Your task to perform on an android device: open app "Google Chrome" (install if not already installed) Image 0: 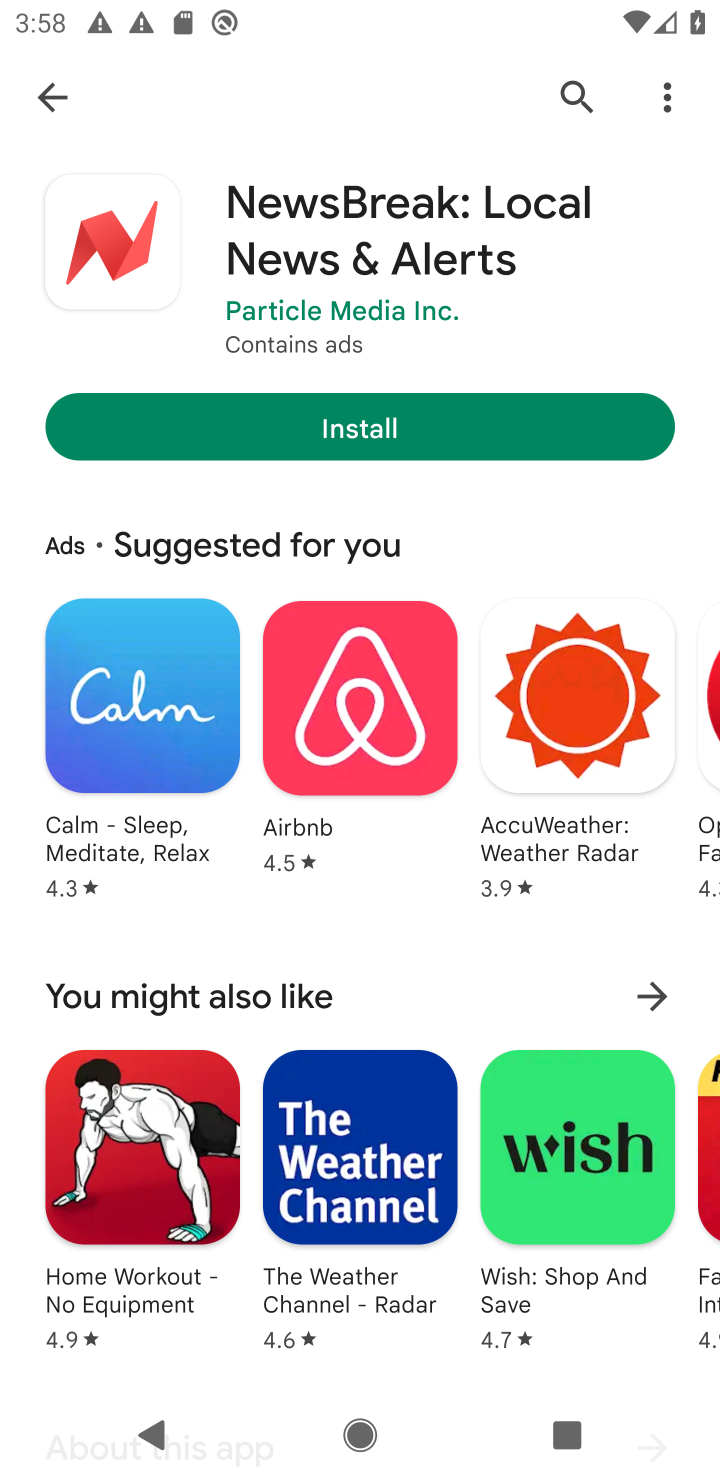
Step 0: click (569, 95)
Your task to perform on an android device: open app "Google Chrome" (install if not already installed) Image 1: 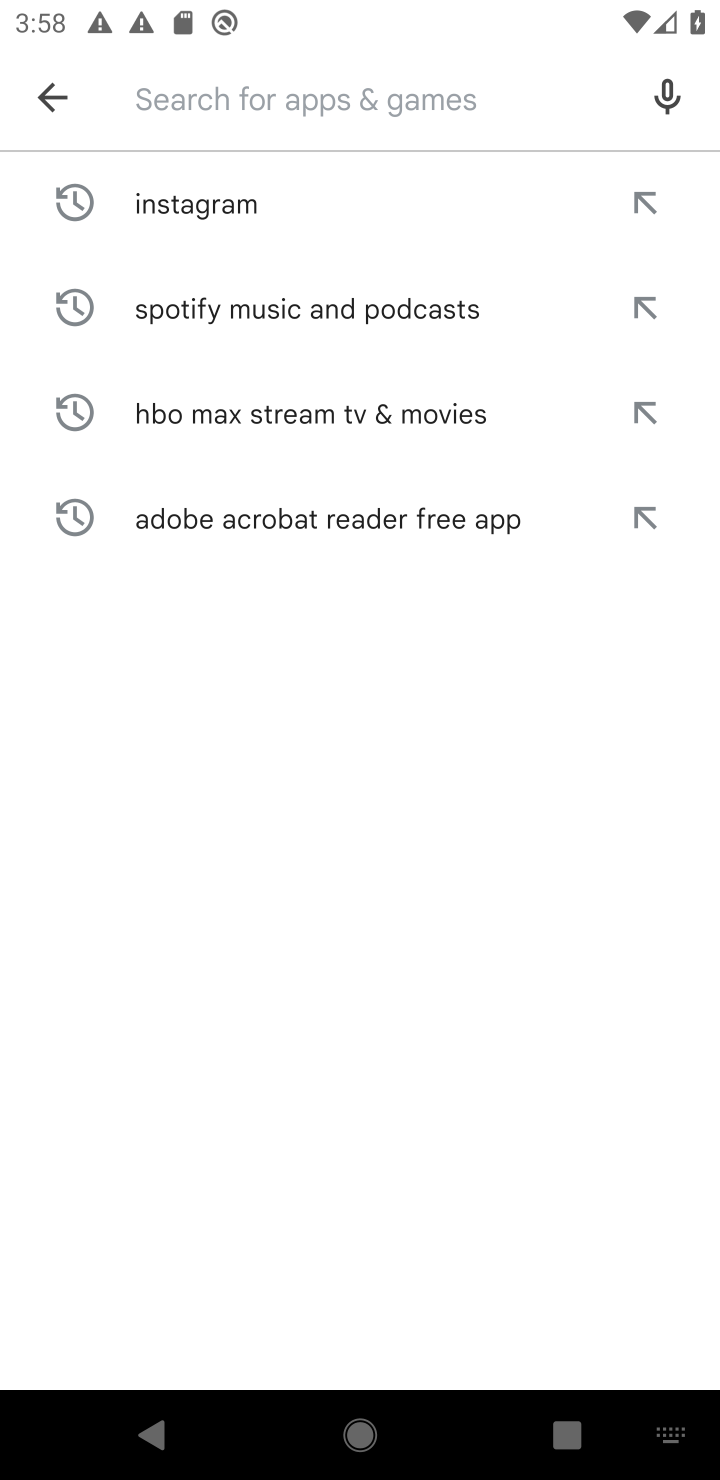
Step 1: press home button
Your task to perform on an android device: open app "Google Chrome" (install if not already installed) Image 2: 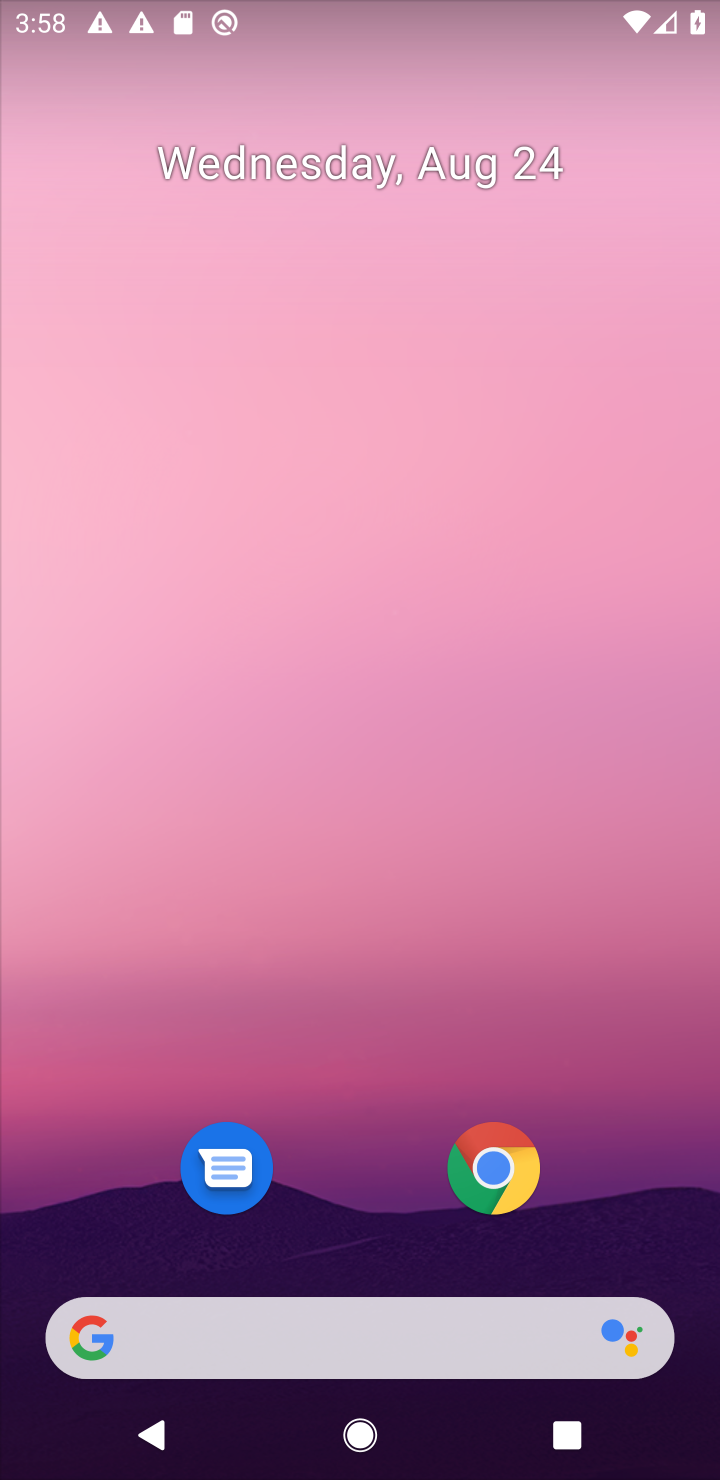
Step 2: click (496, 1173)
Your task to perform on an android device: open app "Google Chrome" (install if not already installed) Image 3: 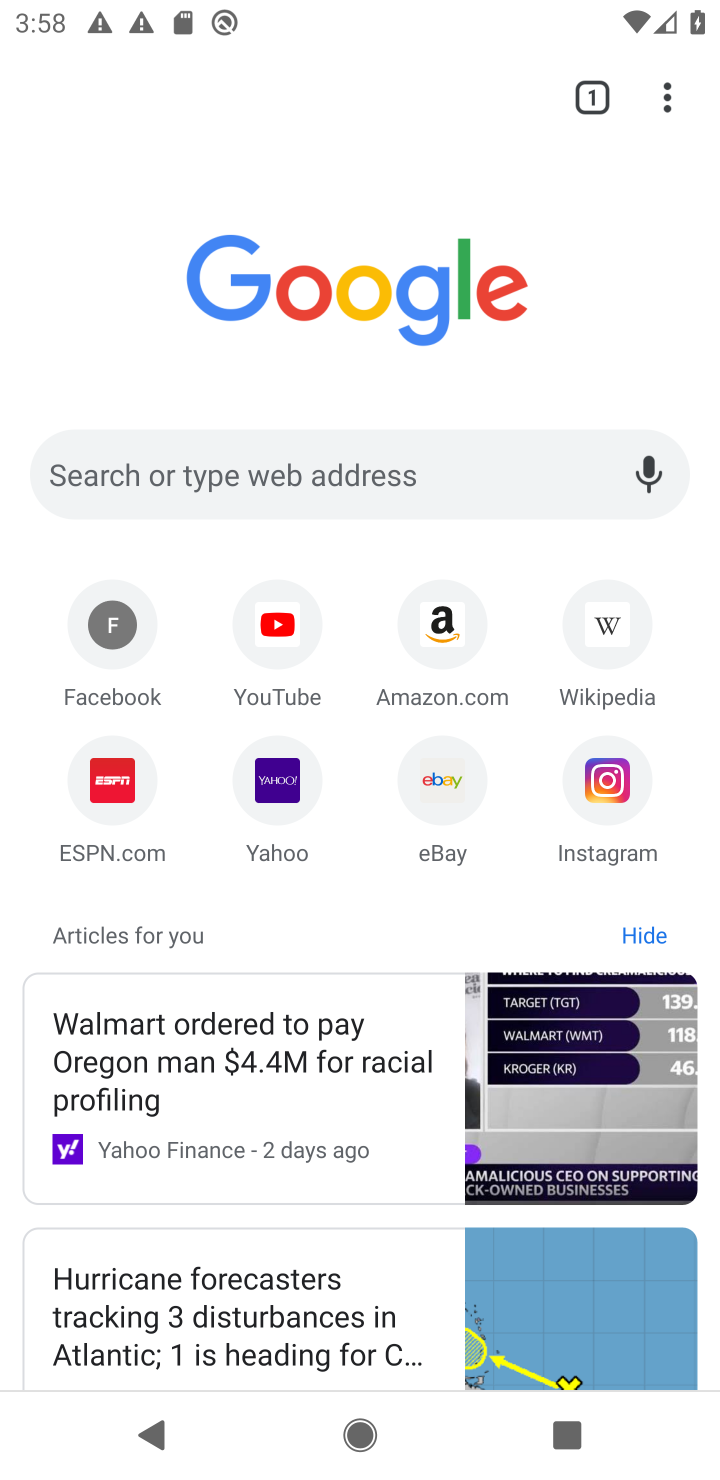
Step 3: task complete